Your task to perform on an android device: Open notification settings Image 0: 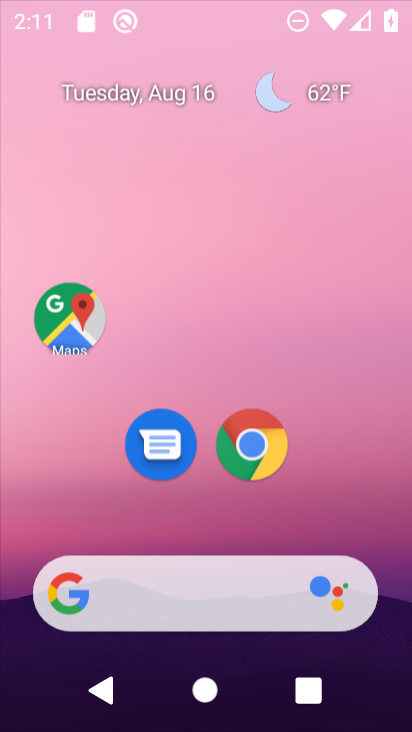
Step 0: press home button
Your task to perform on an android device: Open notification settings Image 1: 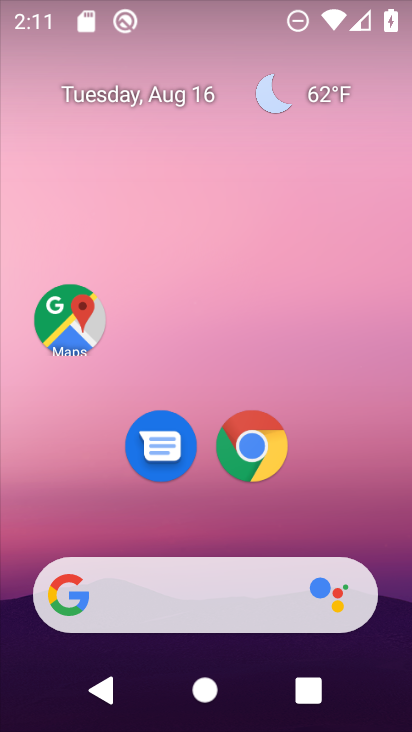
Step 1: drag from (228, 521) to (272, 4)
Your task to perform on an android device: Open notification settings Image 2: 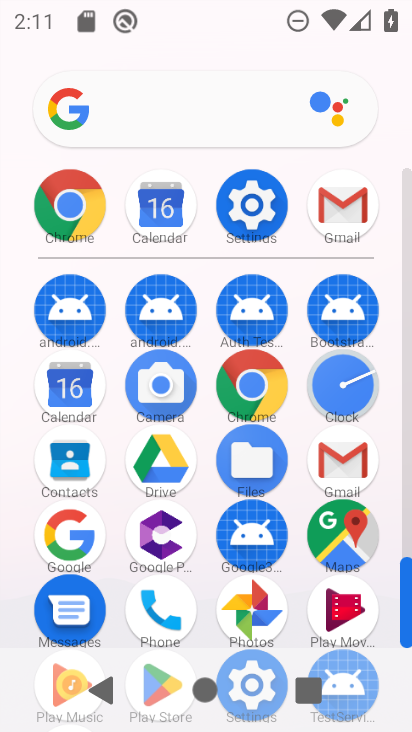
Step 2: click (250, 201)
Your task to perform on an android device: Open notification settings Image 3: 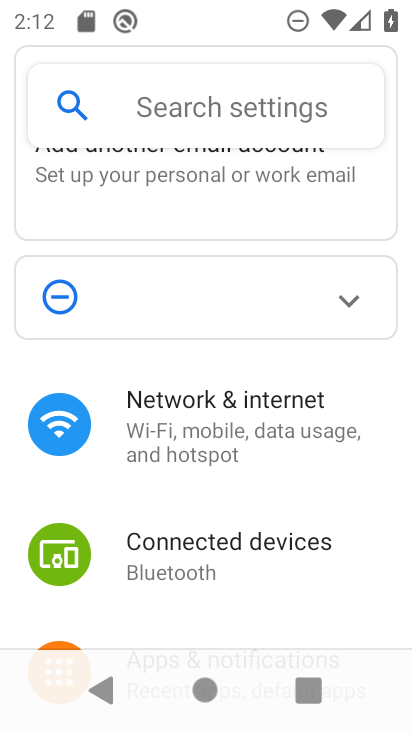
Step 3: drag from (229, 606) to (253, 82)
Your task to perform on an android device: Open notification settings Image 4: 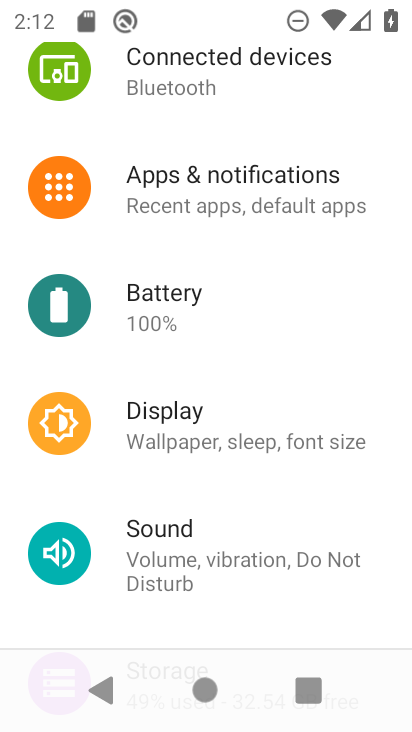
Step 4: click (107, 183)
Your task to perform on an android device: Open notification settings Image 5: 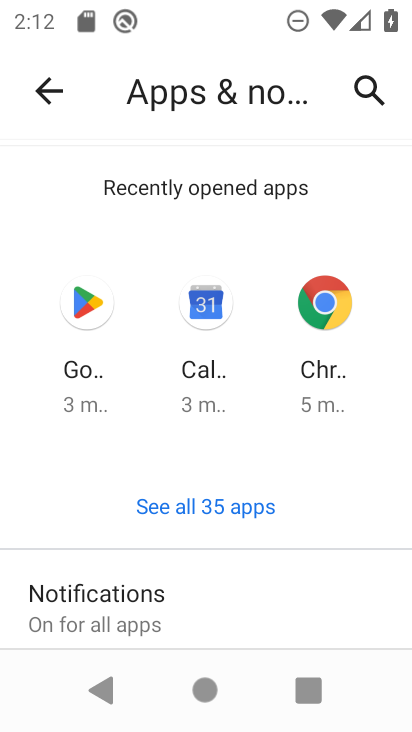
Step 5: click (171, 599)
Your task to perform on an android device: Open notification settings Image 6: 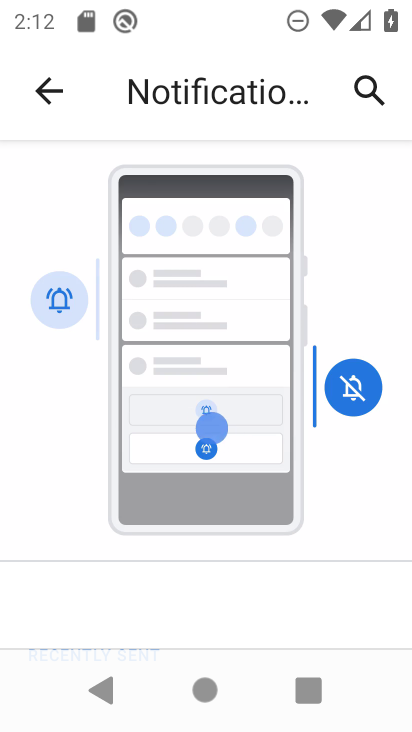
Step 6: drag from (209, 607) to (218, 81)
Your task to perform on an android device: Open notification settings Image 7: 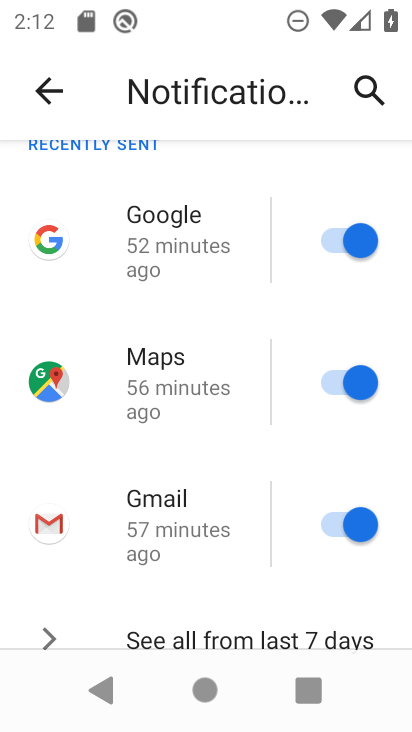
Step 7: drag from (229, 590) to (237, 159)
Your task to perform on an android device: Open notification settings Image 8: 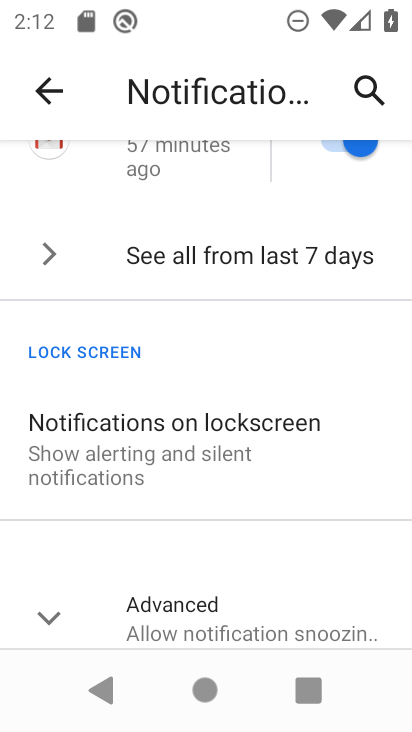
Step 8: click (54, 617)
Your task to perform on an android device: Open notification settings Image 9: 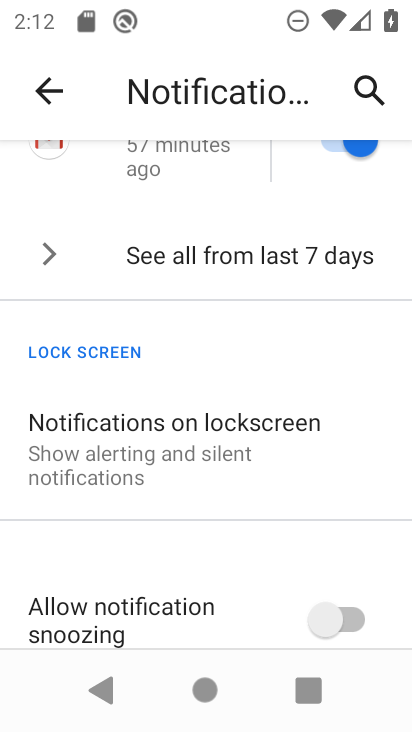
Step 9: task complete